Your task to perform on an android device: see tabs open on other devices in the chrome app Image 0: 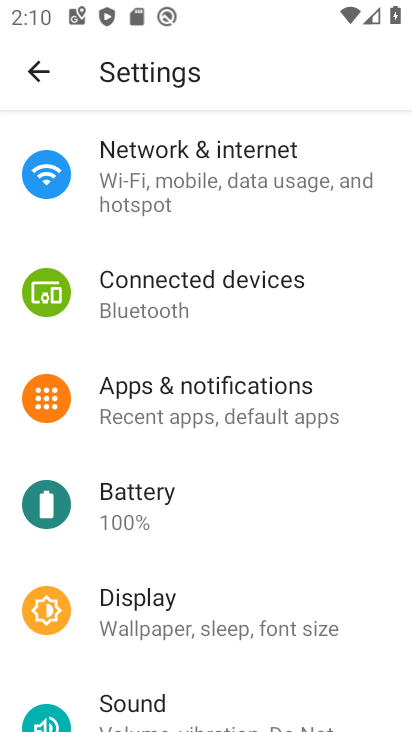
Step 0: press home button
Your task to perform on an android device: see tabs open on other devices in the chrome app Image 1: 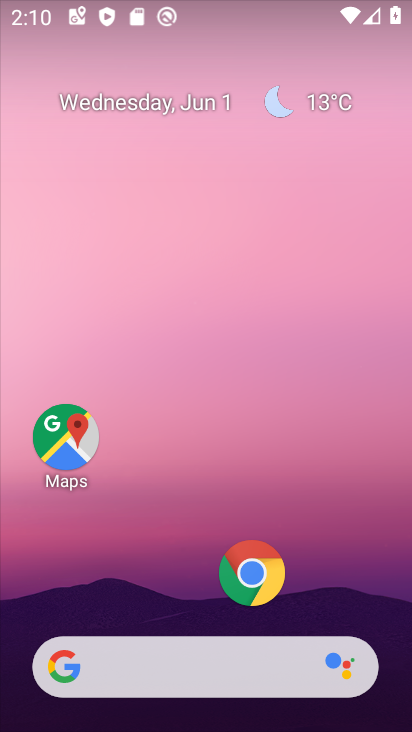
Step 1: click (235, 576)
Your task to perform on an android device: see tabs open on other devices in the chrome app Image 2: 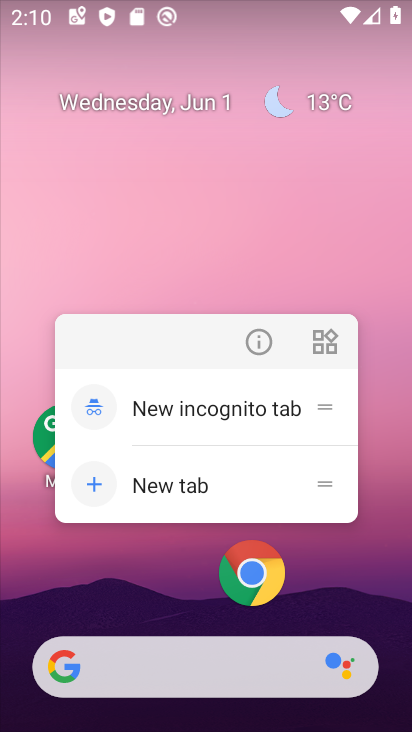
Step 2: click (246, 568)
Your task to perform on an android device: see tabs open on other devices in the chrome app Image 3: 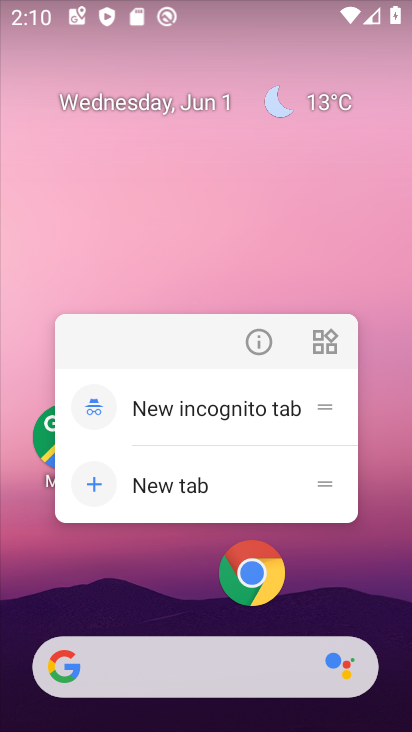
Step 3: click (244, 568)
Your task to perform on an android device: see tabs open on other devices in the chrome app Image 4: 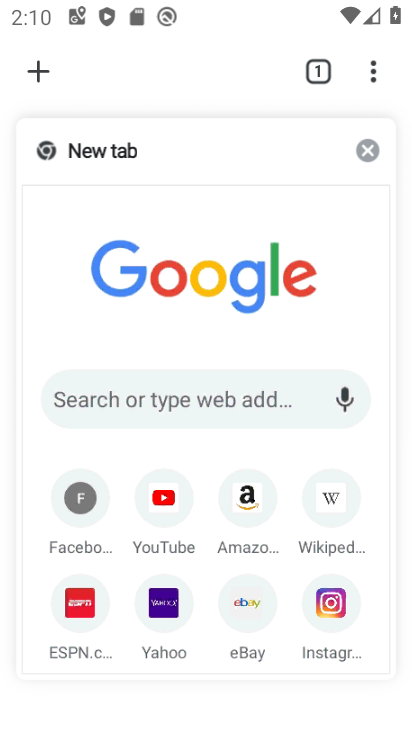
Step 4: click (307, 79)
Your task to perform on an android device: see tabs open on other devices in the chrome app Image 5: 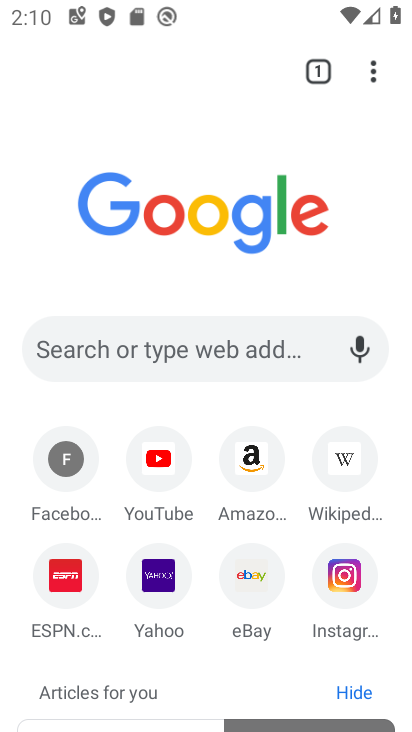
Step 5: task complete